Your task to perform on an android device: find snoozed emails in the gmail app Image 0: 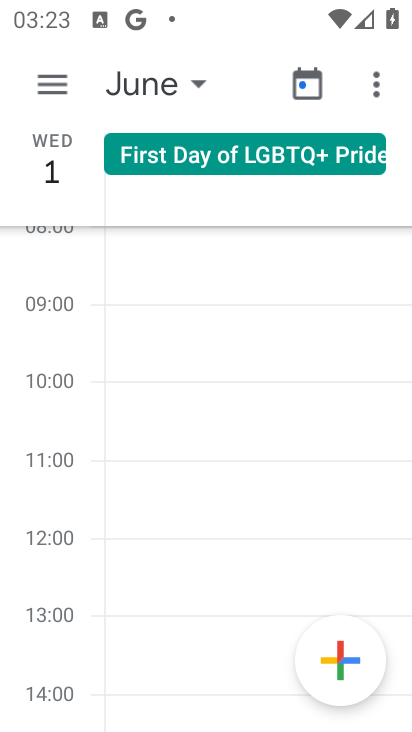
Step 0: press home button
Your task to perform on an android device: find snoozed emails in the gmail app Image 1: 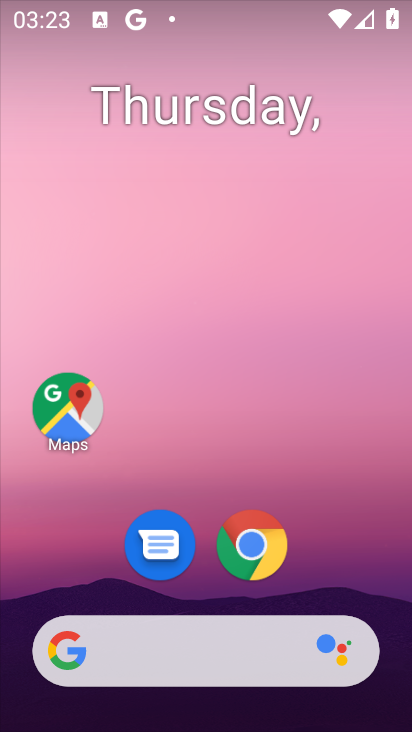
Step 1: drag from (254, 721) to (193, 76)
Your task to perform on an android device: find snoozed emails in the gmail app Image 2: 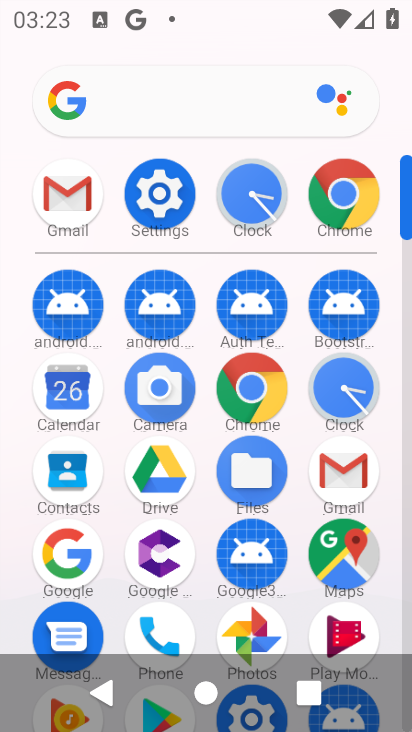
Step 2: click (71, 190)
Your task to perform on an android device: find snoozed emails in the gmail app Image 3: 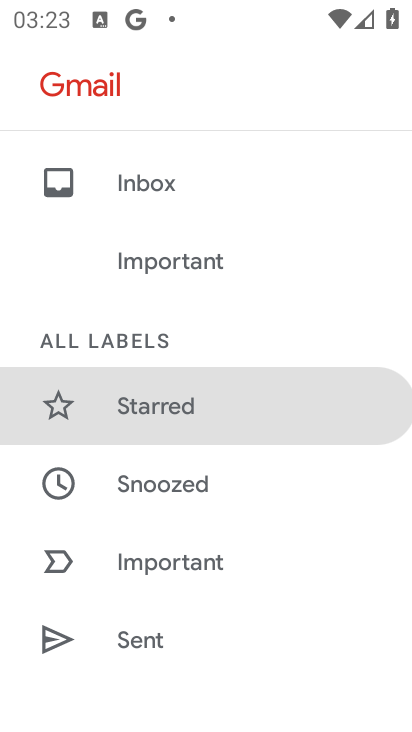
Step 3: drag from (254, 236) to (245, 515)
Your task to perform on an android device: find snoozed emails in the gmail app Image 4: 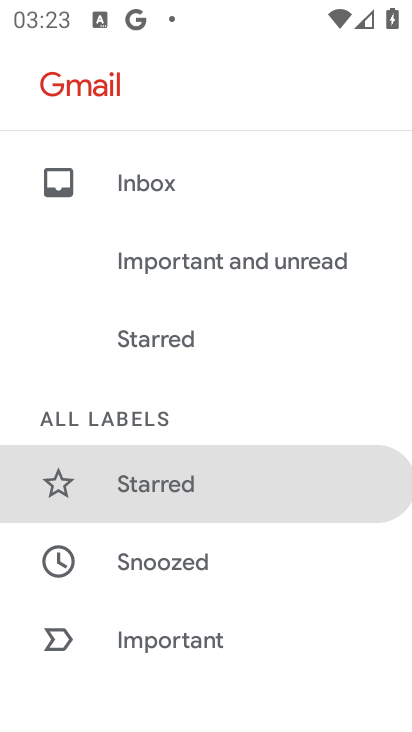
Step 4: click (221, 566)
Your task to perform on an android device: find snoozed emails in the gmail app Image 5: 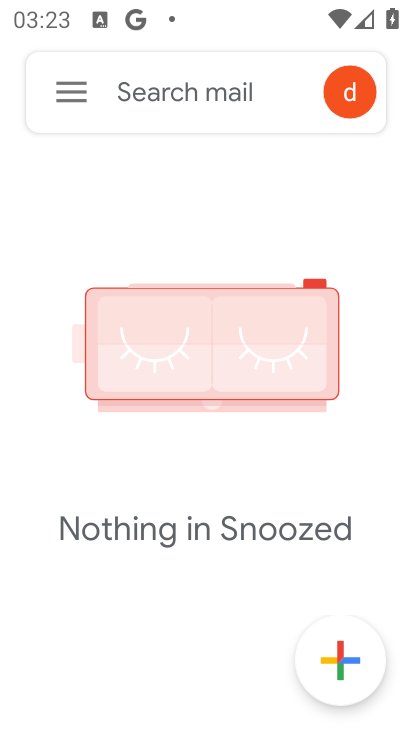
Step 5: task complete